Your task to perform on an android device: allow notifications from all sites in the chrome app Image 0: 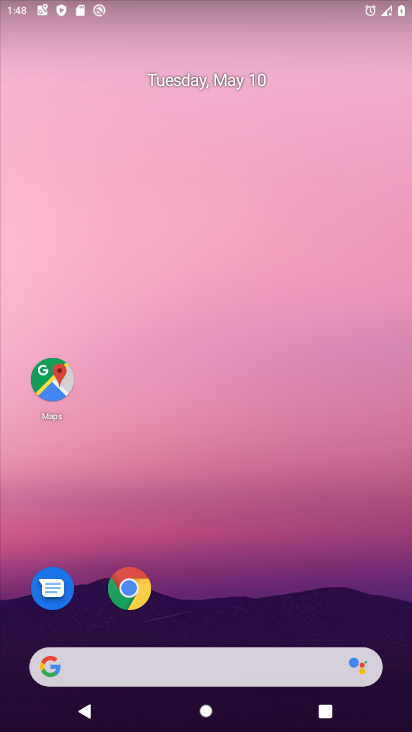
Step 0: click (259, 210)
Your task to perform on an android device: allow notifications from all sites in the chrome app Image 1: 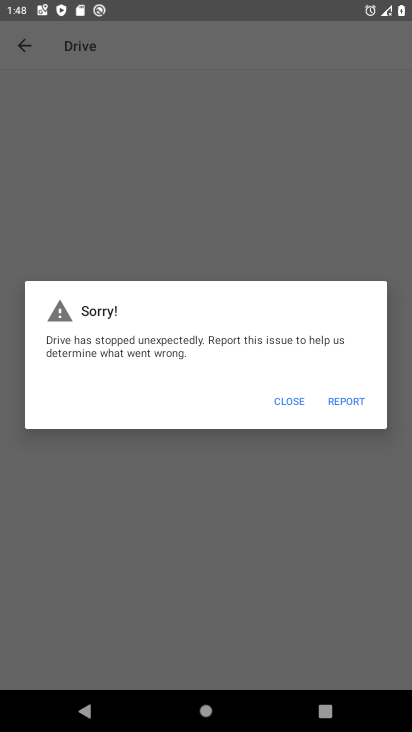
Step 1: click (297, 406)
Your task to perform on an android device: allow notifications from all sites in the chrome app Image 2: 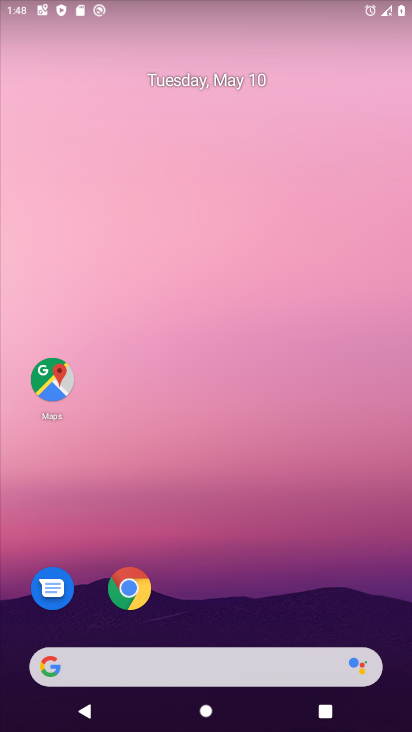
Step 2: drag from (243, 560) to (268, 173)
Your task to perform on an android device: allow notifications from all sites in the chrome app Image 3: 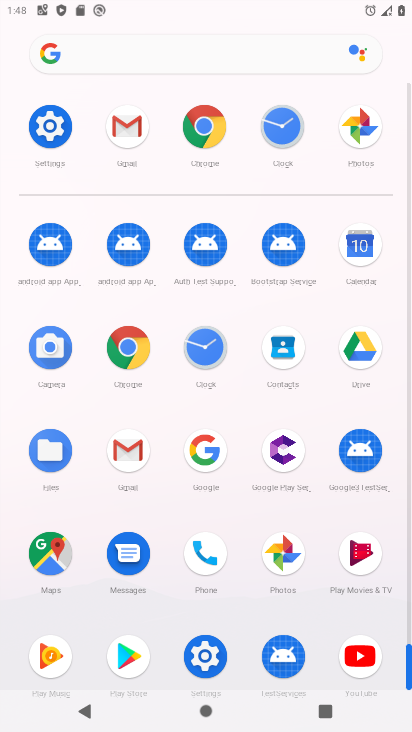
Step 3: click (130, 344)
Your task to perform on an android device: allow notifications from all sites in the chrome app Image 4: 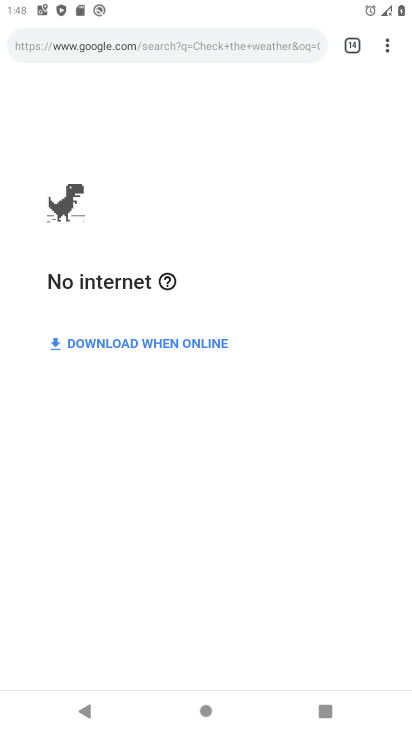
Step 4: click (379, 45)
Your task to perform on an android device: allow notifications from all sites in the chrome app Image 5: 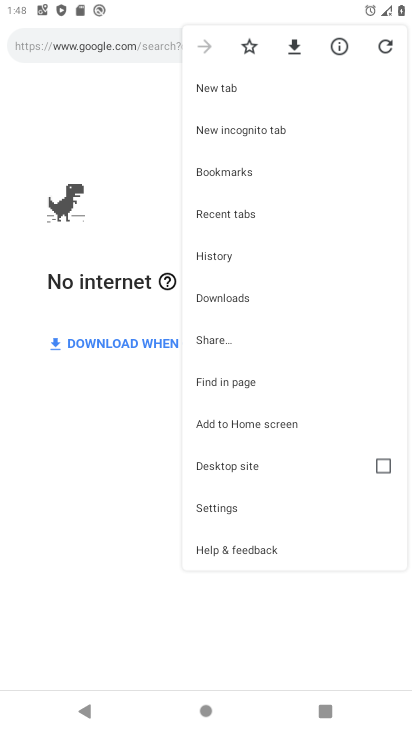
Step 5: click (229, 508)
Your task to perform on an android device: allow notifications from all sites in the chrome app Image 6: 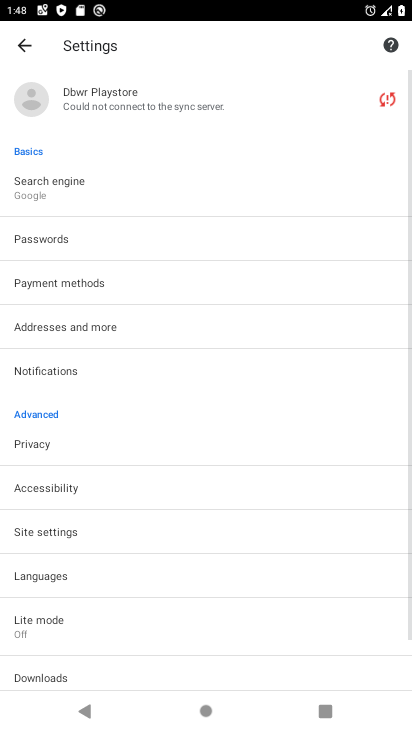
Step 6: click (76, 526)
Your task to perform on an android device: allow notifications from all sites in the chrome app Image 7: 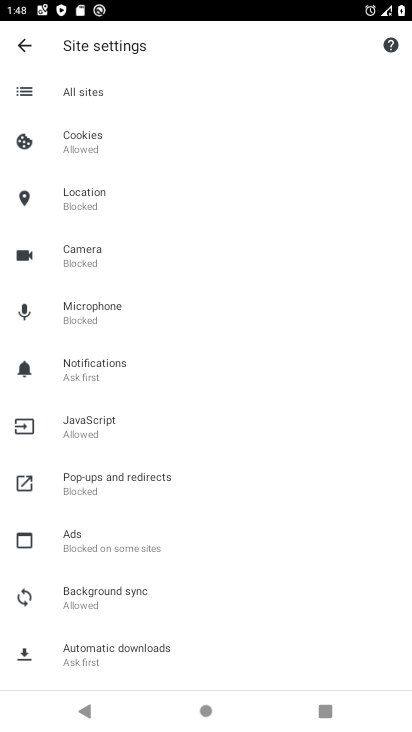
Step 7: task complete